Your task to perform on an android device: toggle sleep mode Image 0: 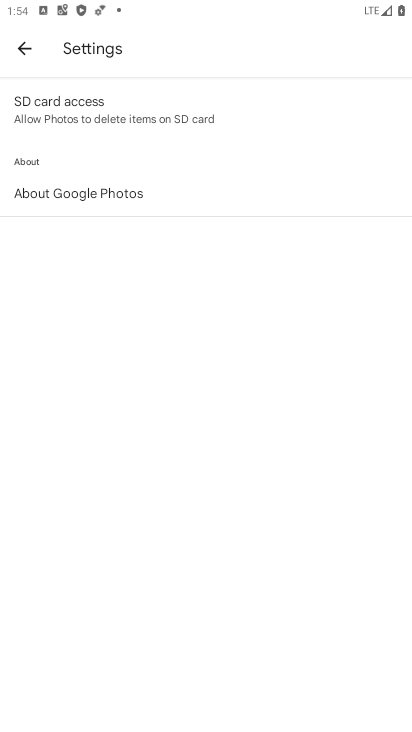
Step 0: press home button
Your task to perform on an android device: toggle sleep mode Image 1: 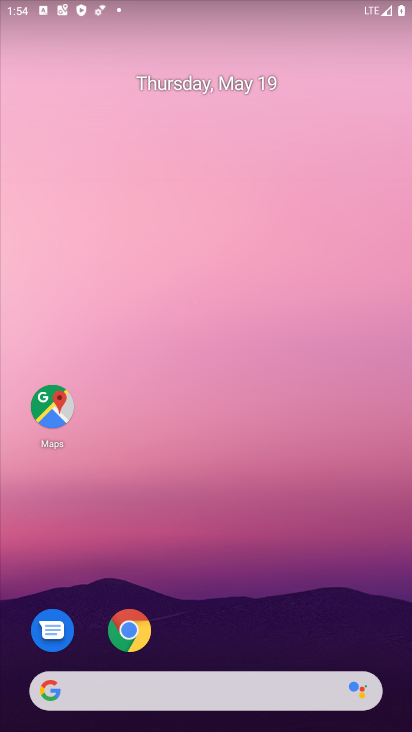
Step 1: drag from (381, 637) to (282, 73)
Your task to perform on an android device: toggle sleep mode Image 2: 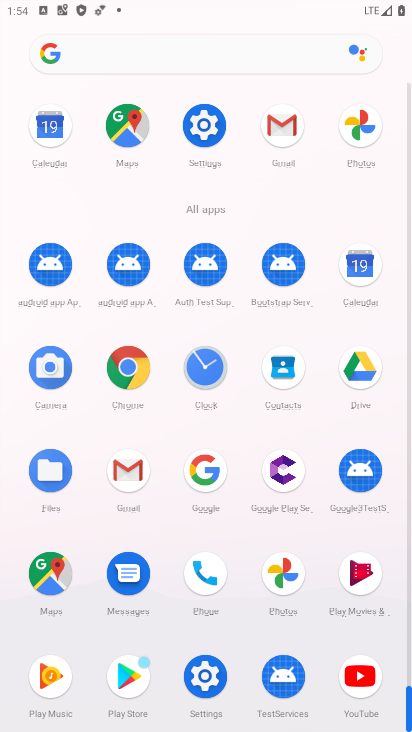
Step 2: click (206, 677)
Your task to perform on an android device: toggle sleep mode Image 3: 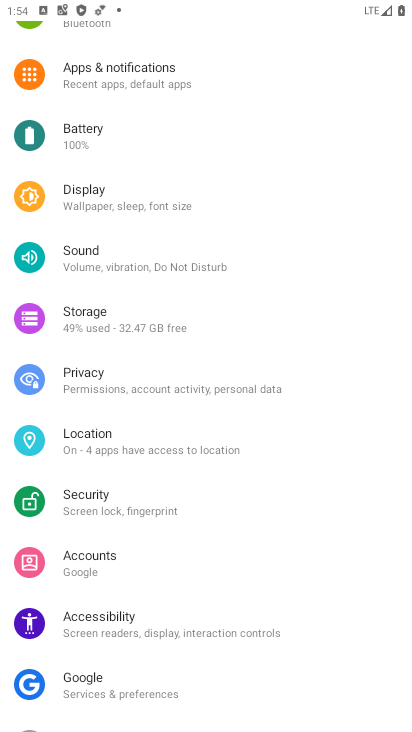
Step 3: click (101, 201)
Your task to perform on an android device: toggle sleep mode Image 4: 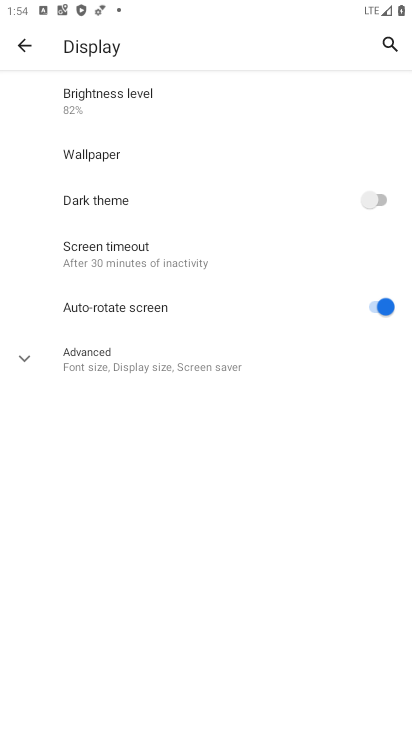
Step 4: click (26, 359)
Your task to perform on an android device: toggle sleep mode Image 5: 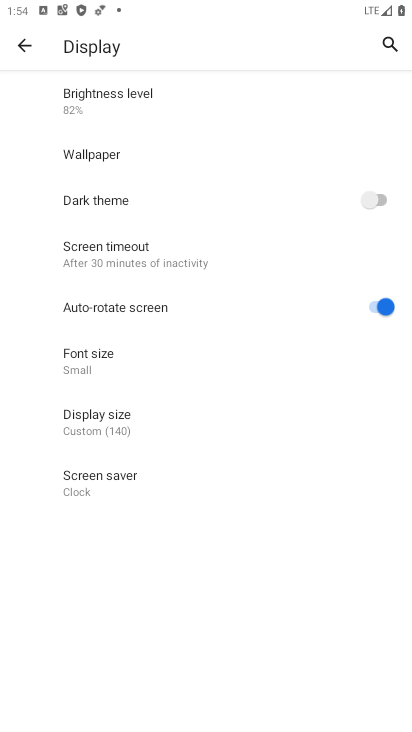
Step 5: task complete